Your task to perform on an android device: change the clock style Image 0: 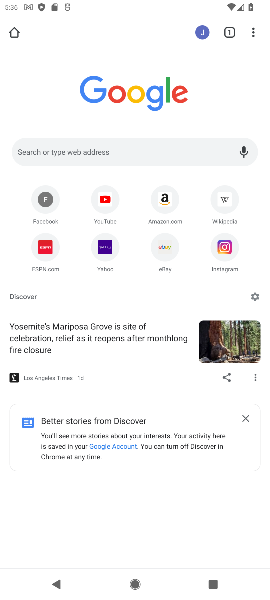
Step 0: press home button
Your task to perform on an android device: change the clock style Image 1: 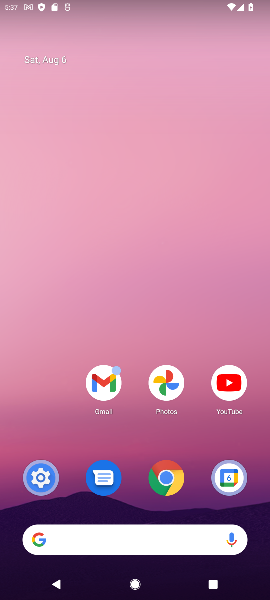
Step 1: drag from (142, 507) to (233, 39)
Your task to perform on an android device: change the clock style Image 2: 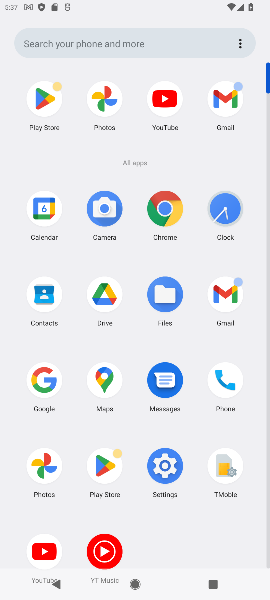
Step 2: click (236, 209)
Your task to perform on an android device: change the clock style Image 3: 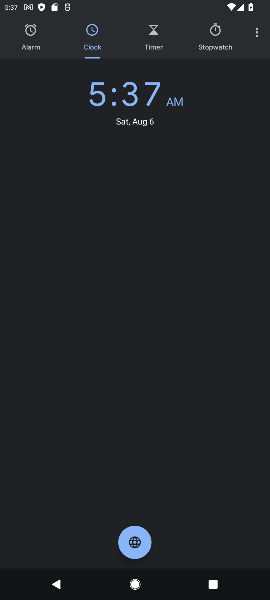
Step 3: click (262, 42)
Your task to perform on an android device: change the clock style Image 4: 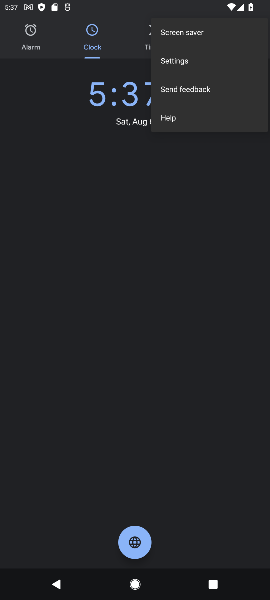
Step 4: click (183, 62)
Your task to perform on an android device: change the clock style Image 5: 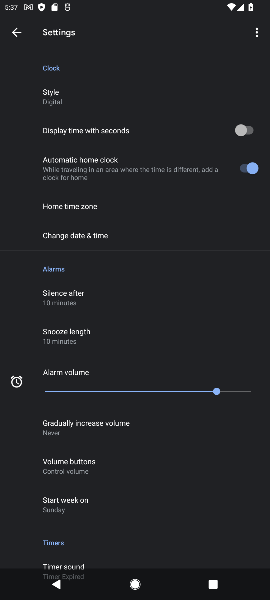
Step 5: click (50, 101)
Your task to perform on an android device: change the clock style Image 6: 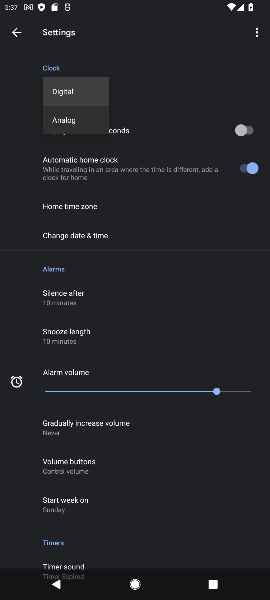
Step 6: click (58, 122)
Your task to perform on an android device: change the clock style Image 7: 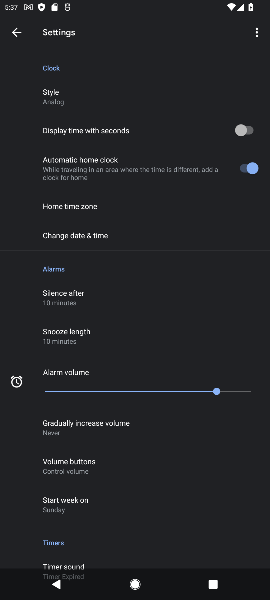
Step 7: task complete